Your task to perform on an android device: open device folders in google photos Image 0: 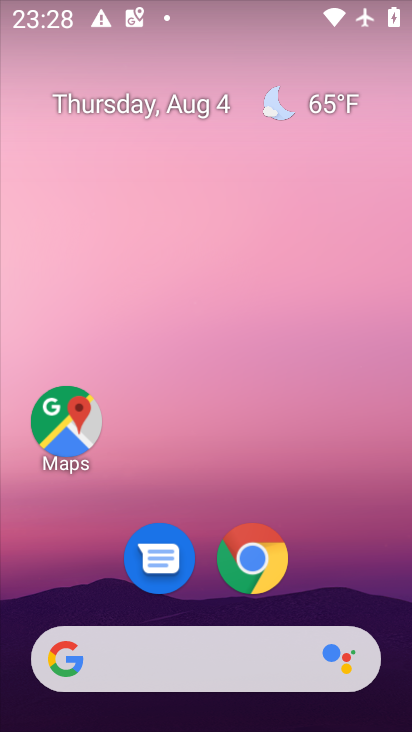
Step 0: drag from (357, 560) to (276, 2)
Your task to perform on an android device: open device folders in google photos Image 1: 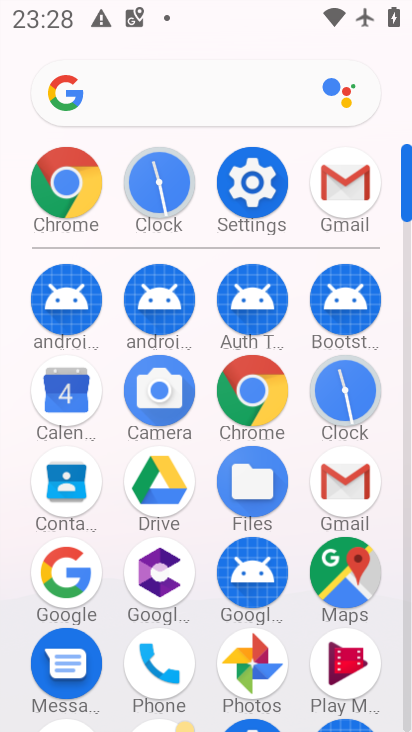
Step 1: click (265, 648)
Your task to perform on an android device: open device folders in google photos Image 2: 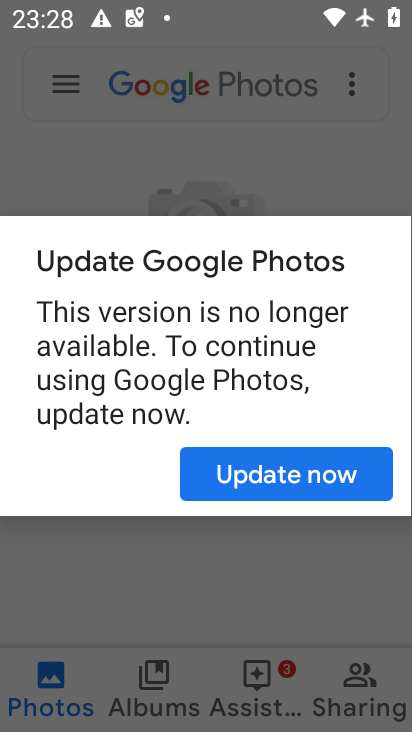
Step 2: click (325, 486)
Your task to perform on an android device: open device folders in google photos Image 3: 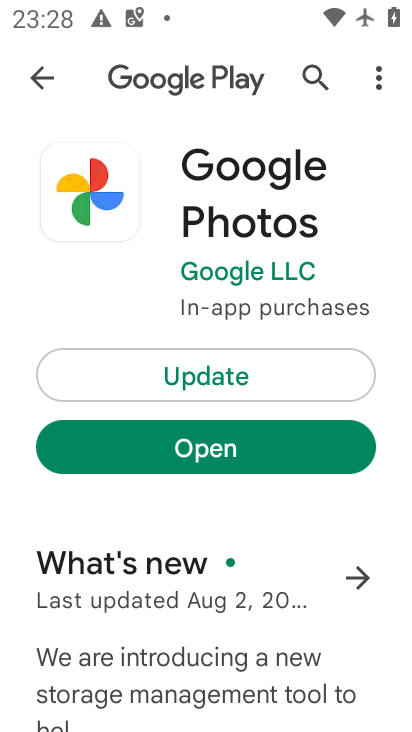
Step 3: click (289, 383)
Your task to perform on an android device: open device folders in google photos Image 4: 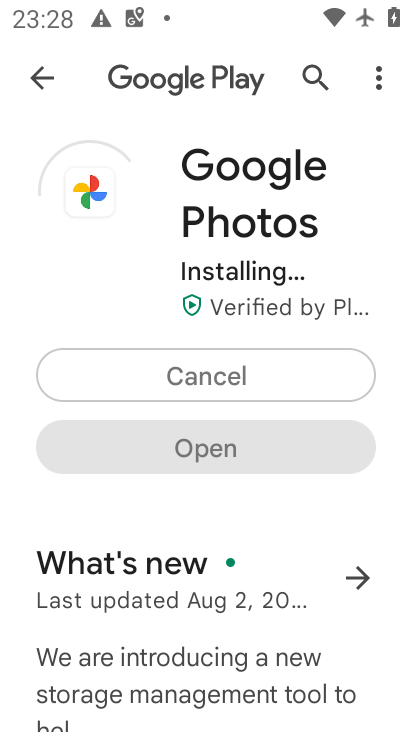
Step 4: task complete